Your task to perform on an android device: Open Chrome and go to settings Image 0: 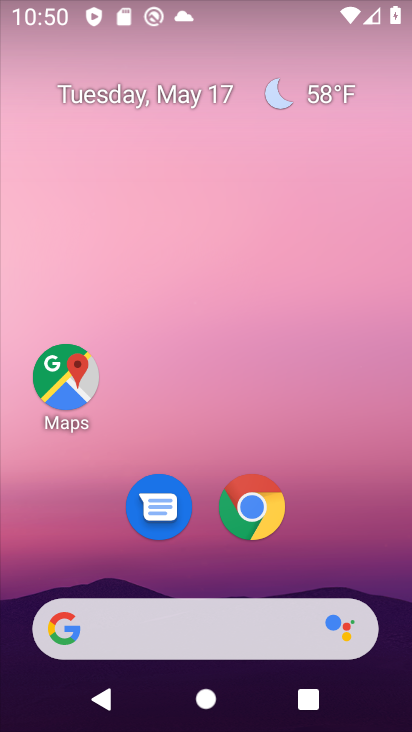
Step 0: click (249, 510)
Your task to perform on an android device: Open Chrome and go to settings Image 1: 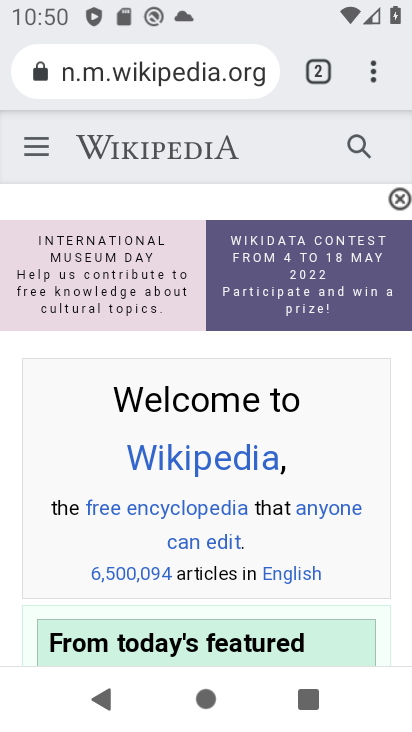
Step 1: click (371, 70)
Your task to perform on an android device: Open Chrome and go to settings Image 2: 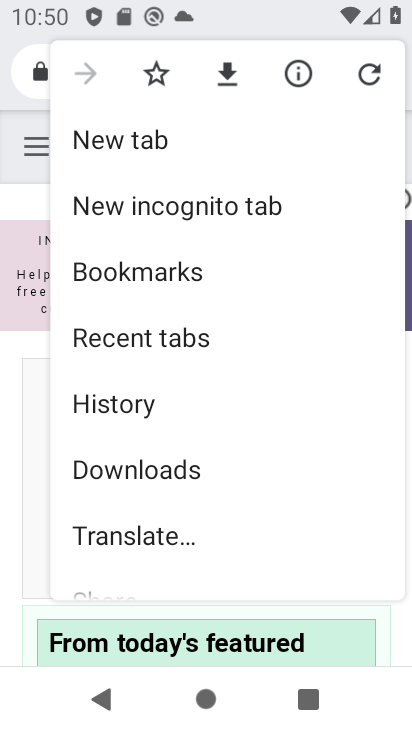
Step 2: drag from (236, 503) to (192, 204)
Your task to perform on an android device: Open Chrome and go to settings Image 3: 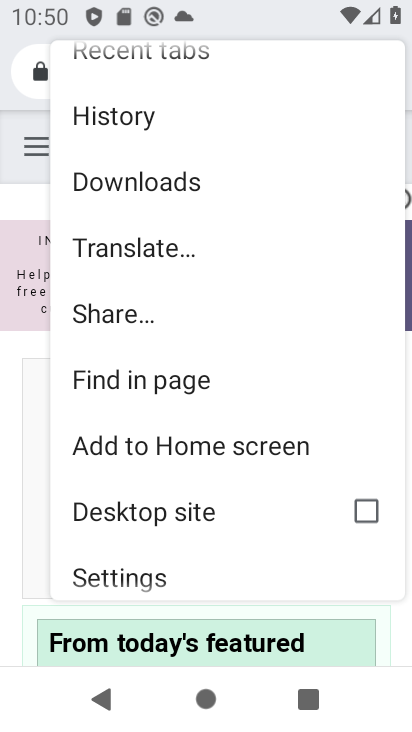
Step 3: click (140, 571)
Your task to perform on an android device: Open Chrome and go to settings Image 4: 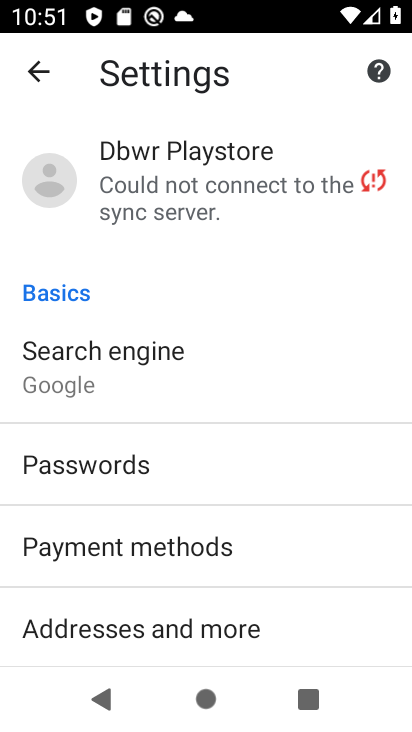
Step 4: task complete